Your task to perform on an android device: change the clock style Image 0: 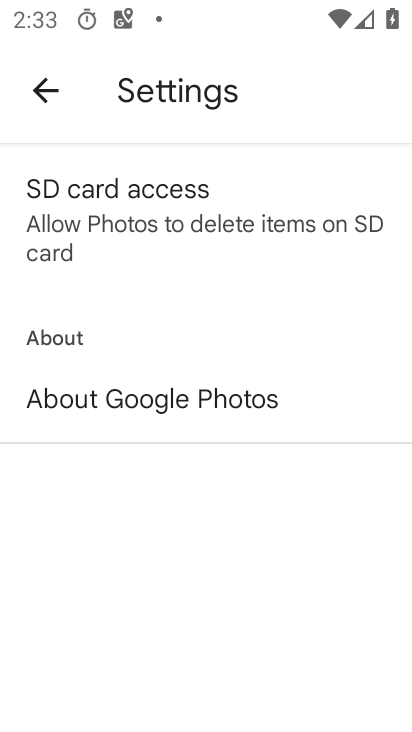
Step 0: press home button
Your task to perform on an android device: change the clock style Image 1: 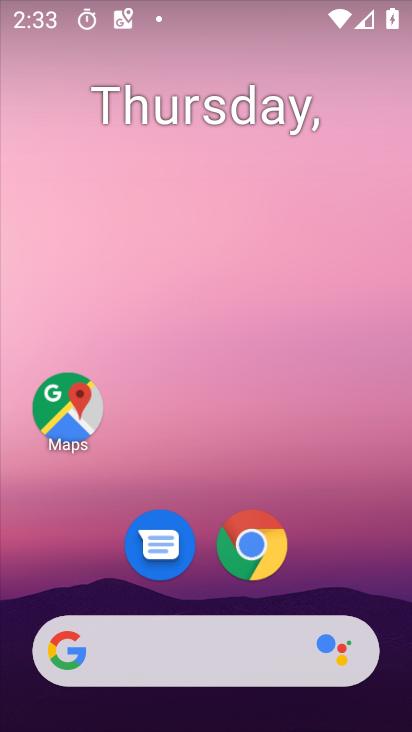
Step 1: drag from (216, 723) to (216, 163)
Your task to perform on an android device: change the clock style Image 2: 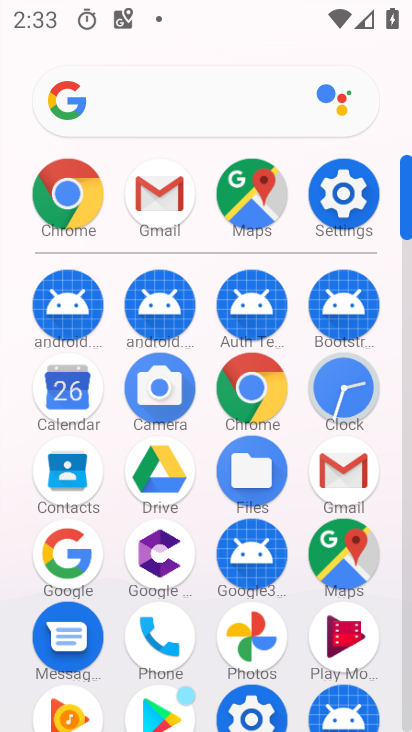
Step 2: click (336, 388)
Your task to perform on an android device: change the clock style Image 3: 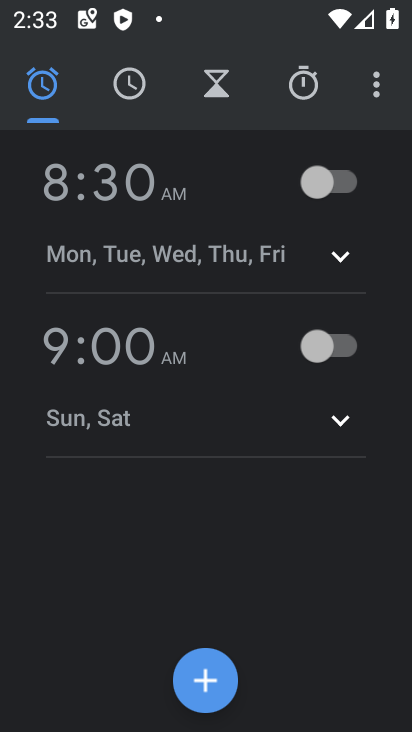
Step 3: click (379, 98)
Your task to perform on an android device: change the clock style Image 4: 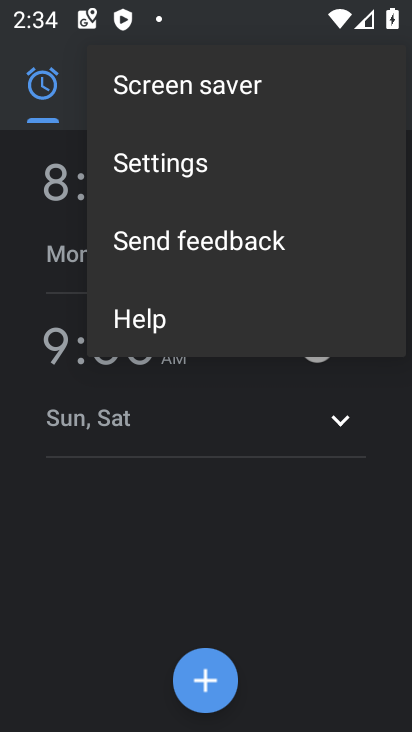
Step 4: click (154, 164)
Your task to perform on an android device: change the clock style Image 5: 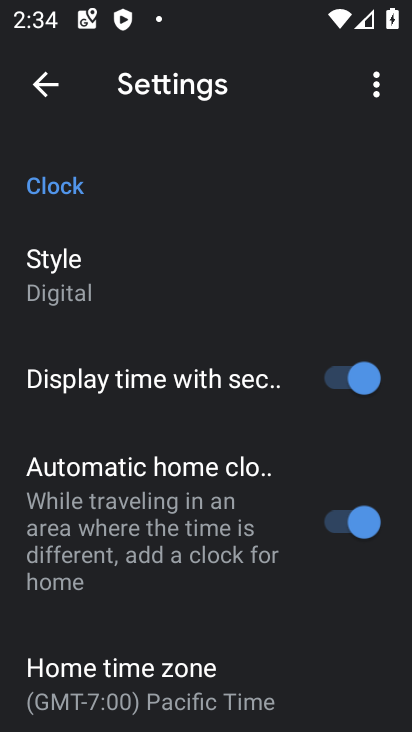
Step 5: click (59, 294)
Your task to perform on an android device: change the clock style Image 6: 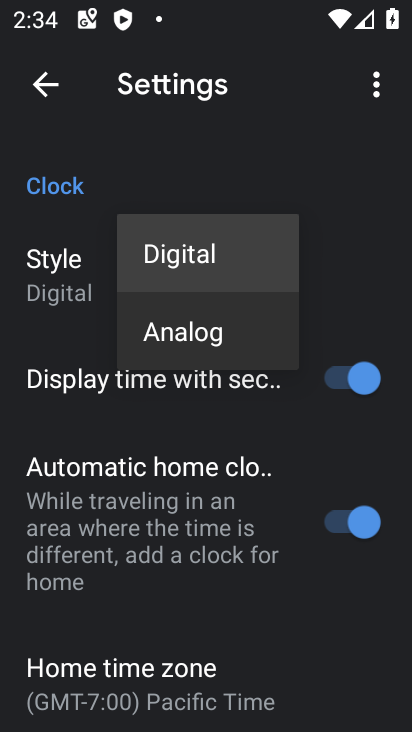
Step 6: click (178, 332)
Your task to perform on an android device: change the clock style Image 7: 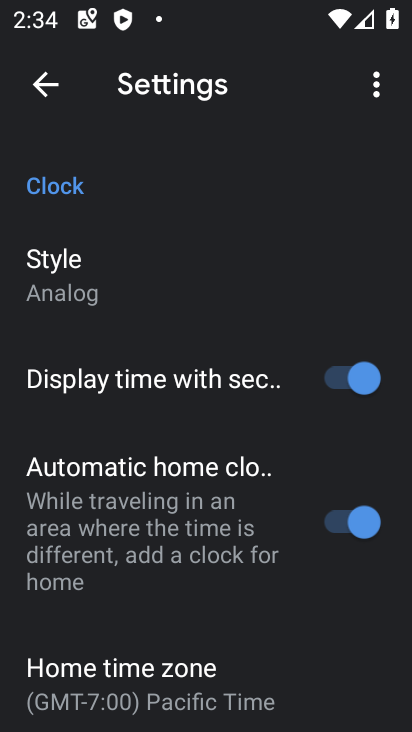
Step 7: task complete